Your task to perform on an android device: set the timer Image 0: 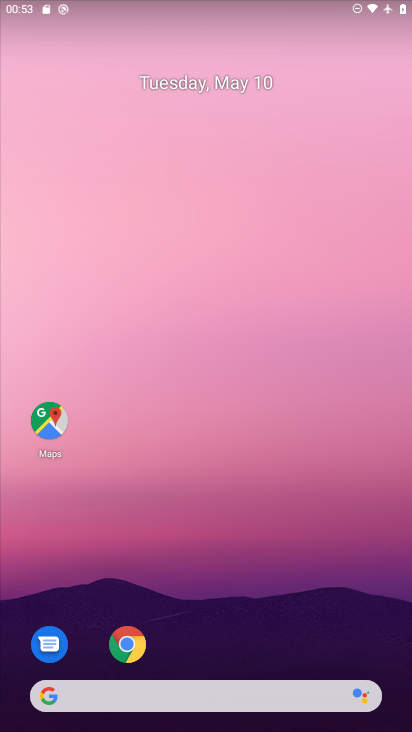
Step 0: drag from (244, 582) to (253, 208)
Your task to perform on an android device: set the timer Image 1: 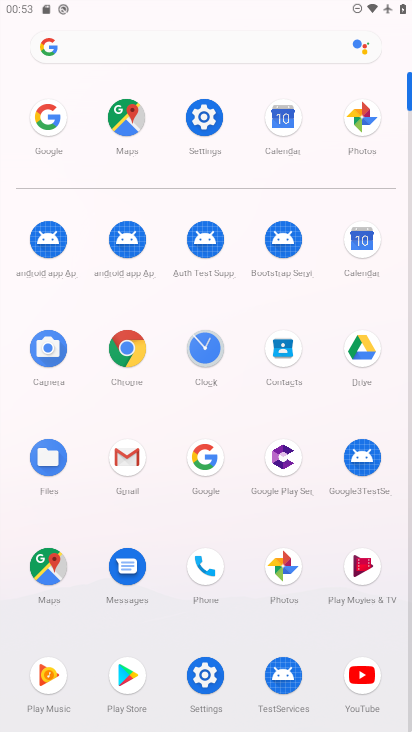
Step 1: click (223, 352)
Your task to perform on an android device: set the timer Image 2: 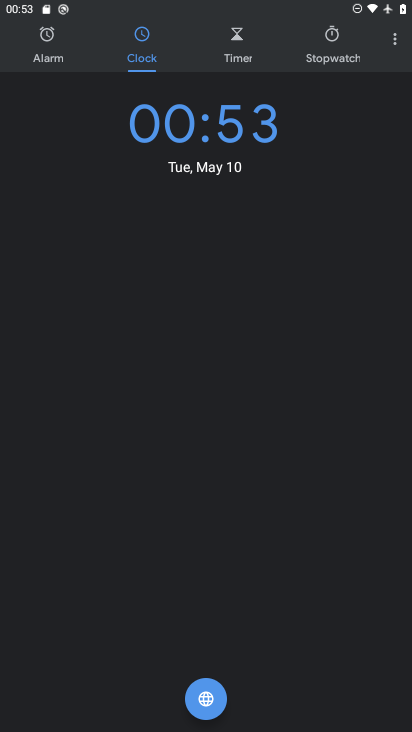
Step 2: click (239, 47)
Your task to perform on an android device: set the timer Image 3: 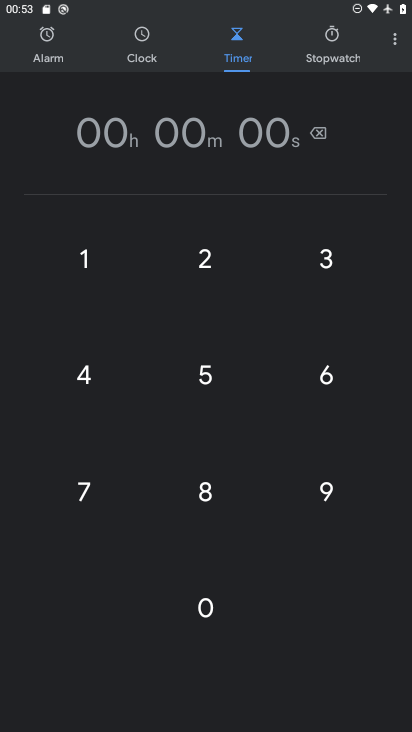
Step 3: click (272, 139)
Your task to perform on an android device: set the timer Image 4: 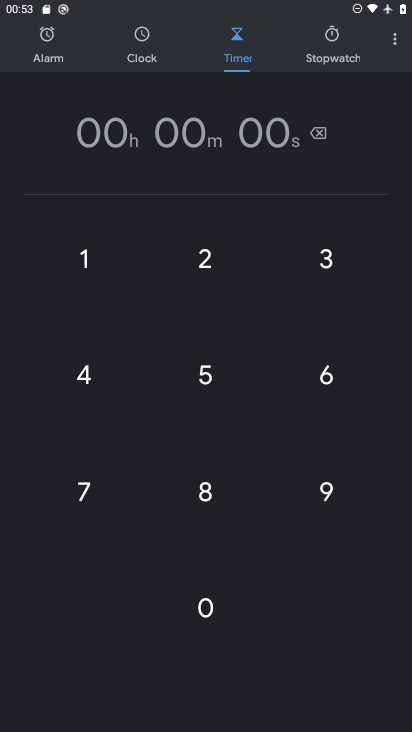
Step 4: type "45"
Your task to perform on an android device: set the timer Image 5: 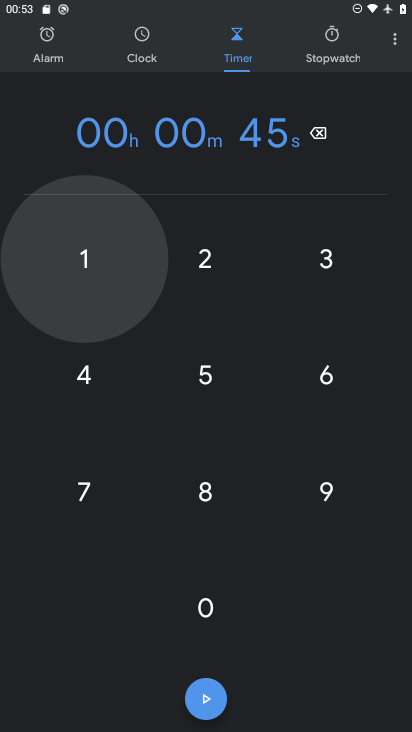
Step 5: click (205, 690)
Your task to perform on an android device: set the timer Image 6: 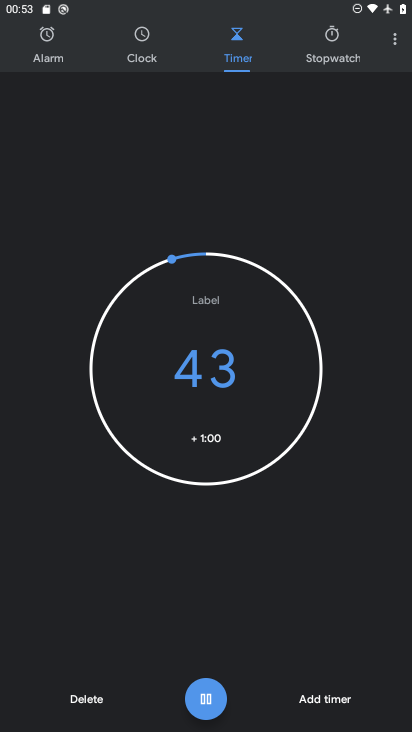
Step 6: task complete